Your task to perform on an android device: check data usage Image 0: 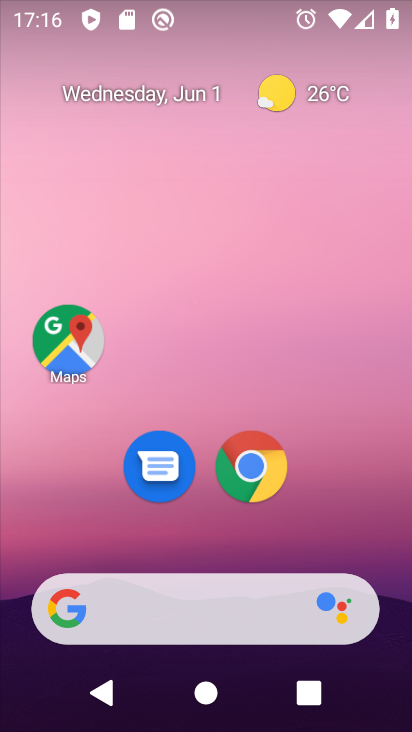
Step 0: drag from (329, 503) to (227, 51)
Your task to perform on an android device: check data usage Image 1: 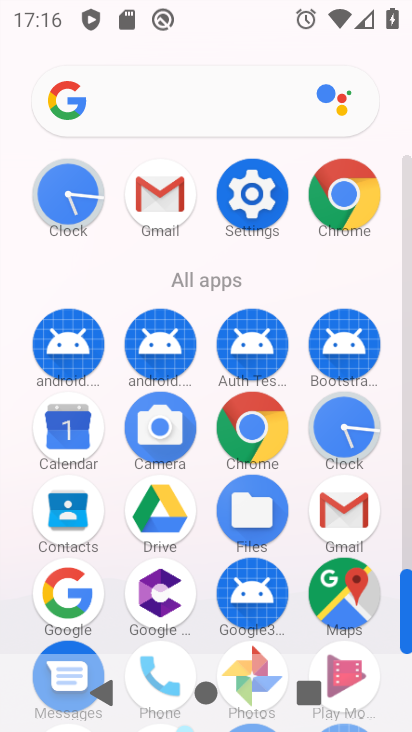
Step 1: click (255, 190)
Your task to perform on an android device: check data usage Image 2: 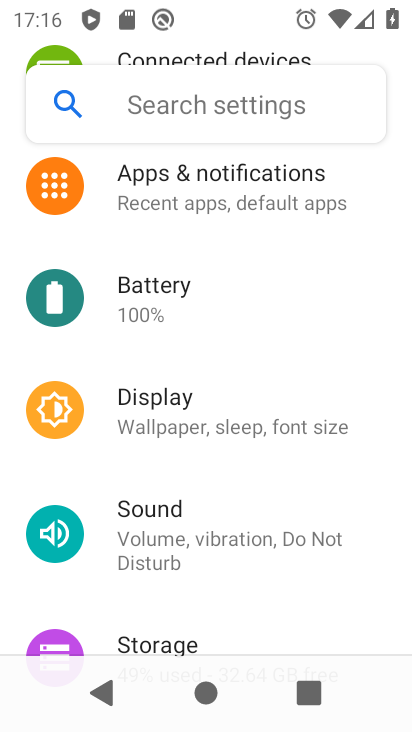
Step 2: drag from (220, 255) to (226, 669)
Your task to perform on an android device: check data usage Image 3: 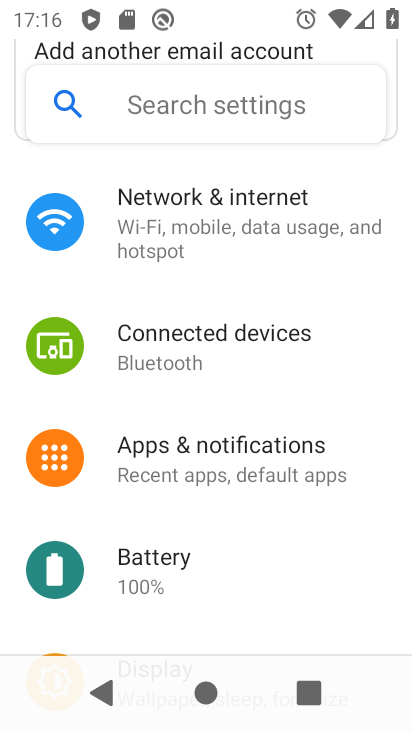
Step 3: drag from (214, 269) to (207, 729)
Your task to perform on an android device: check data usage Image 4: 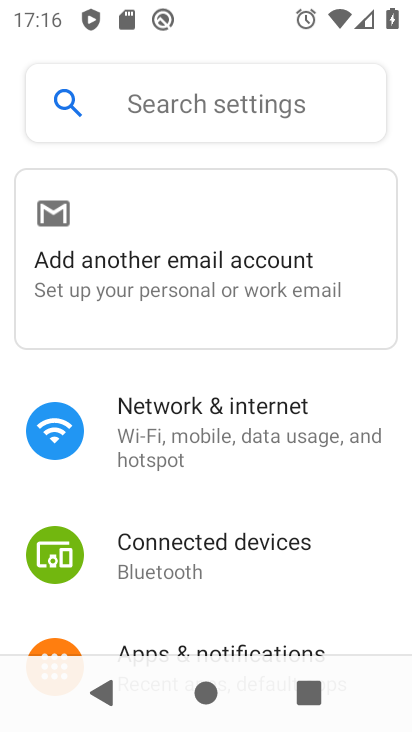
Step 4: click (164, 404)
Your task to perform on an android device: check data usage Image 5: 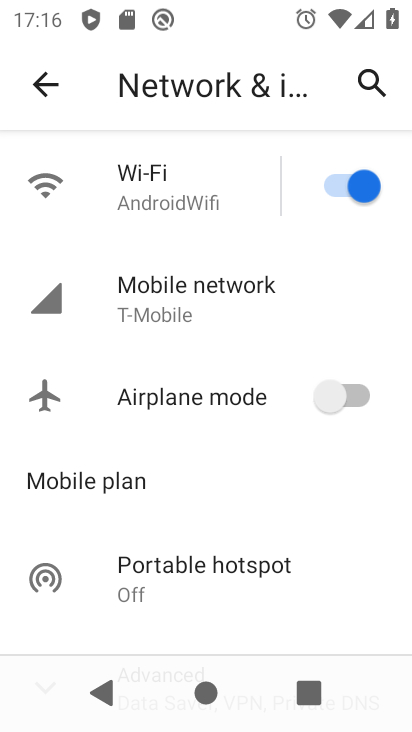
Step 5: click (146, 285)
Your task to perform on an android device: check data usage Image 6: 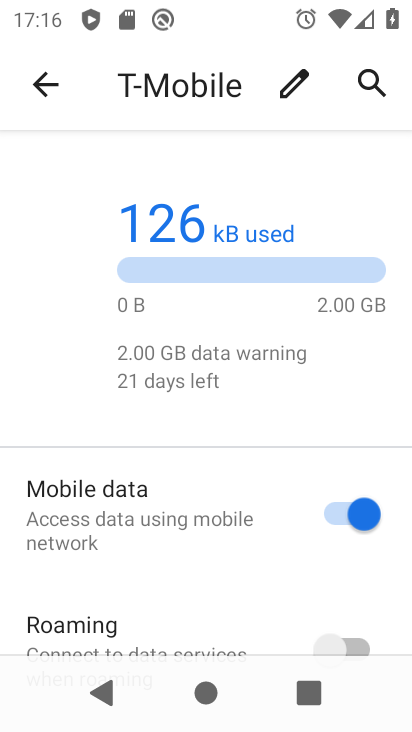
Step 6: task complete